Your task to perform on an android device: open the mobile data screen to see how much data has been used Image 0: 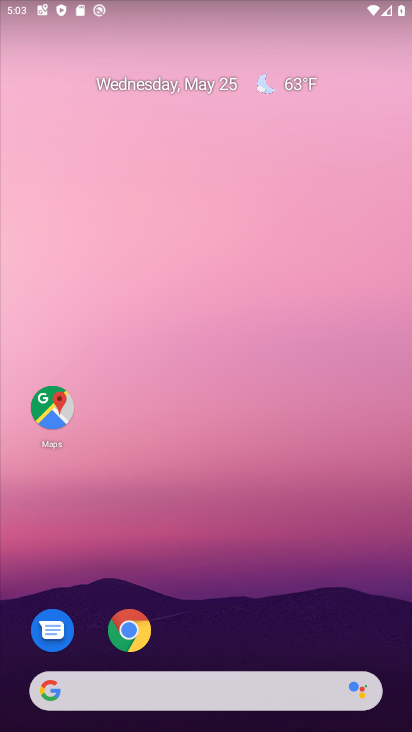
Step 0: drag from (199, 664) to (316, 84)
Your task to perform on an android device: open the mobile data screen to see how much data has been used Image 1: 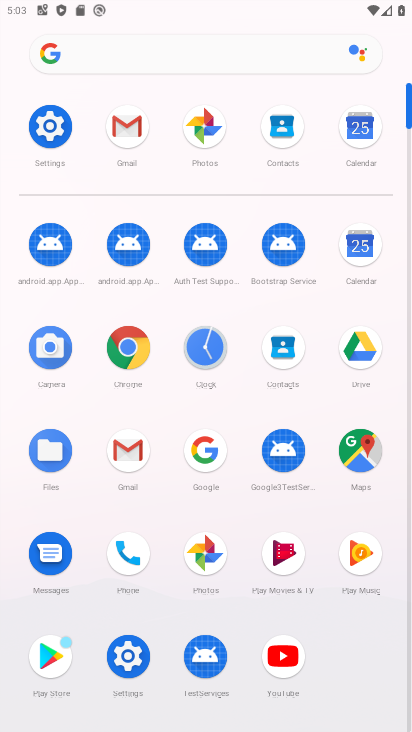
Step 1: click (56, 116)
Your task to perform on an android device: open the mobile data screen to see how much data has been used Image 2: 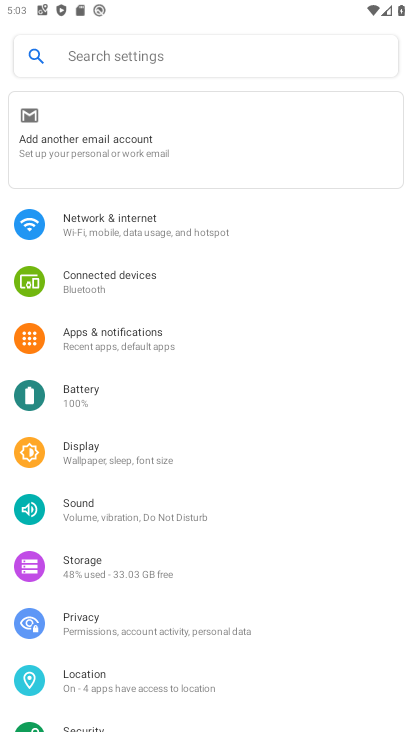
Step 2: click (136, 221)
Your task to perform on an android device: open the mobile data screen to see how much data has been used Image 3: 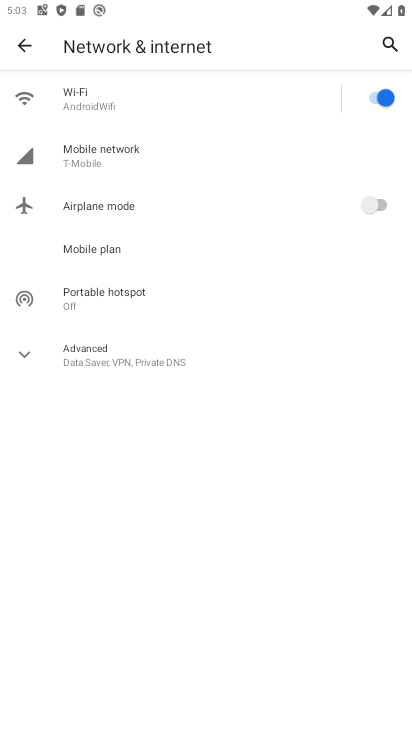
Step 3: click (103, 146)
Your task to perform on an android device: open the mobile data screen to see how much data has been used Image 4: 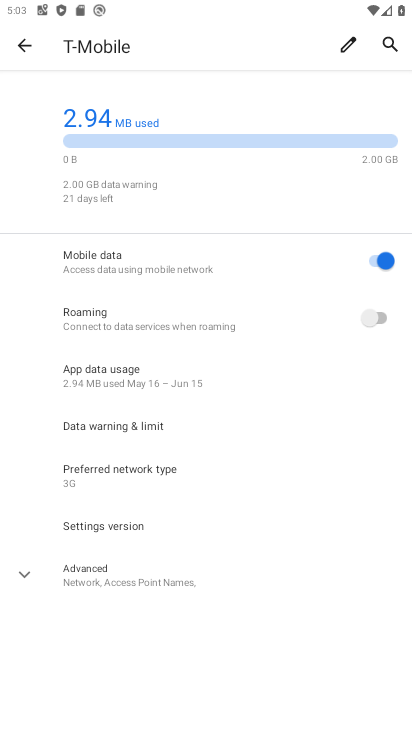
Step 4: click (111, 376)
Your task to perform on an android device: open the mobile data screen to see how much data has been used Image 5: 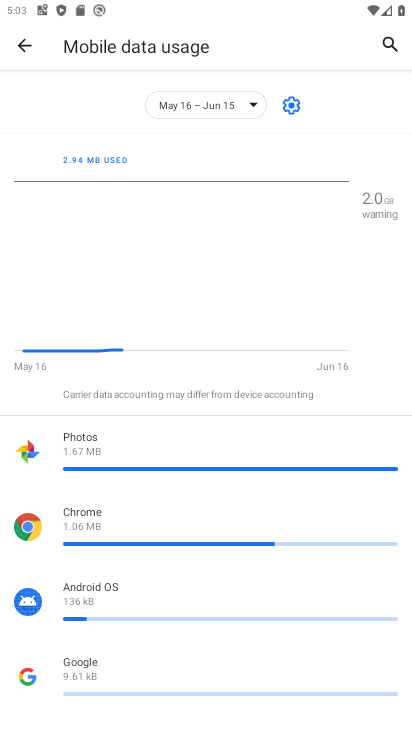
Step 5: task complete